Your task to perform on an android device: check google app version Image 0: 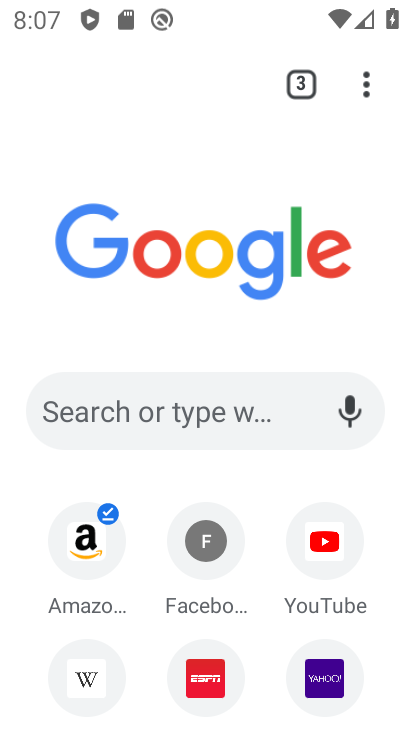
Step 0: press home button
Your task to perform on an android device: check google app version Image 1: 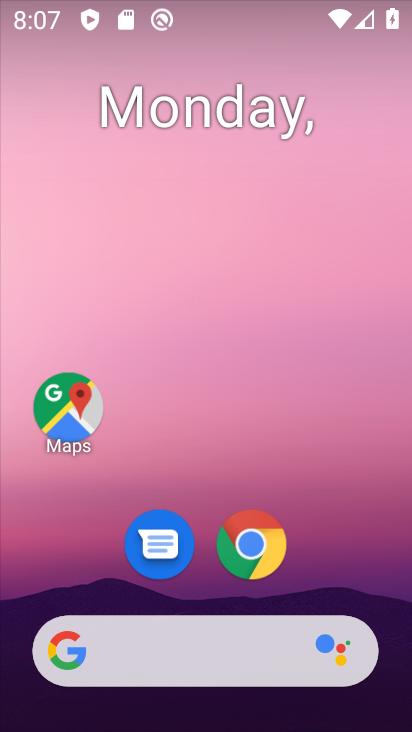
Step 1: drag from (184, 611) to (90, 0)
Your task to perform on an android device: check google app version Image 2: 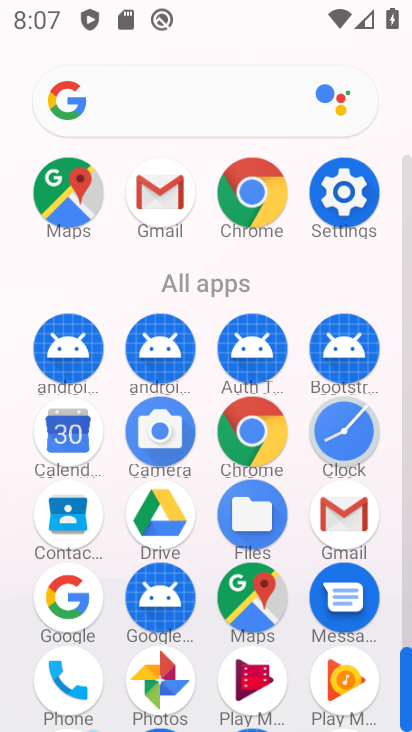
Step 2: drag from (196, 641) to (122, 97)
Your task to perform on an android device: check google app version Image 3: 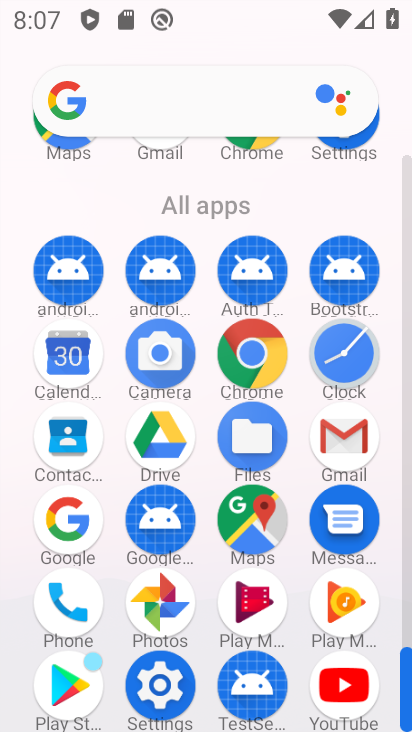
Step 3: drag from (205, 654) to (126, 90)
Your task to perform on an android device: check google app version Image 4: 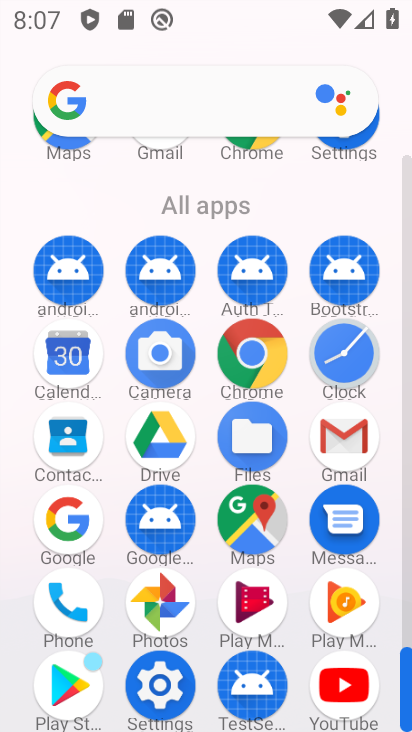
Step 4: click (79, 513)
Your task to perform on an android device: check google app version Image 5: 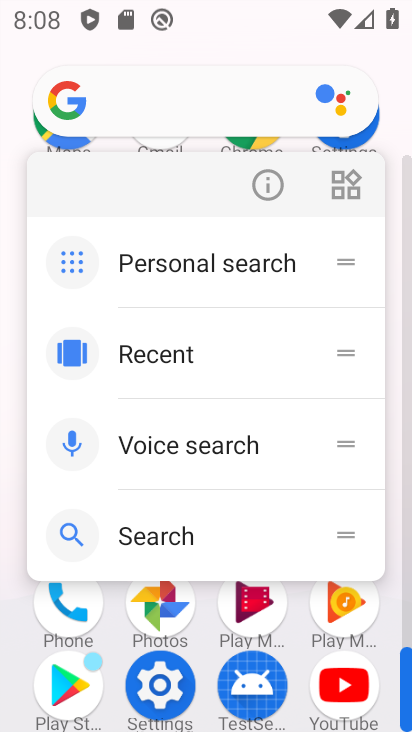
Step 5: click (261, 193)
Your task to perform on an android device: check google app version Image 6: 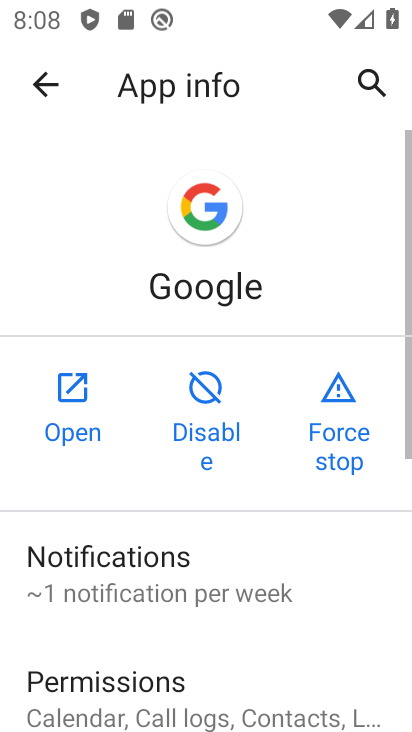
Step 6: drag from (309, 660) to (221, 20)
Your task to perform on an android device: check google app version Image 7: 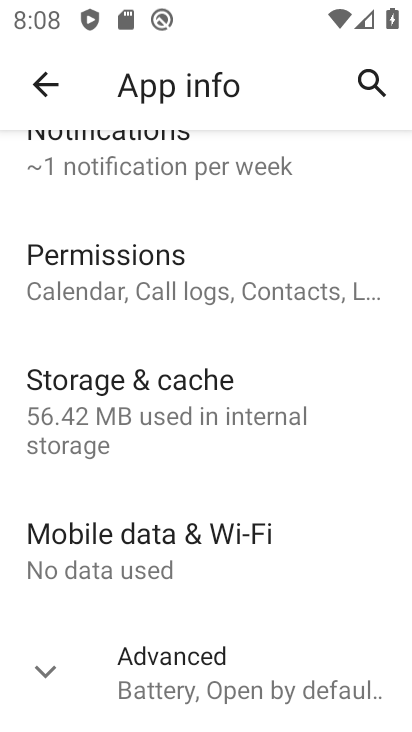
Step 7: click (192, 634)
Your task to perform on an android device: check google app version Image 8: 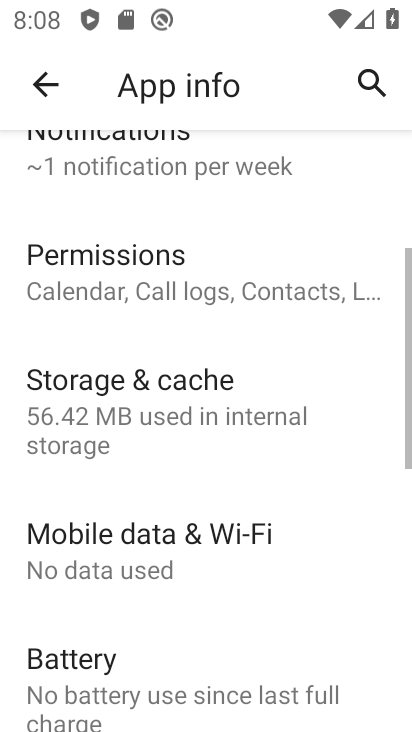
Step 8: task complete